Your task to perform on an android device: Open Google Chrome and open the bookmarks view Image 0: 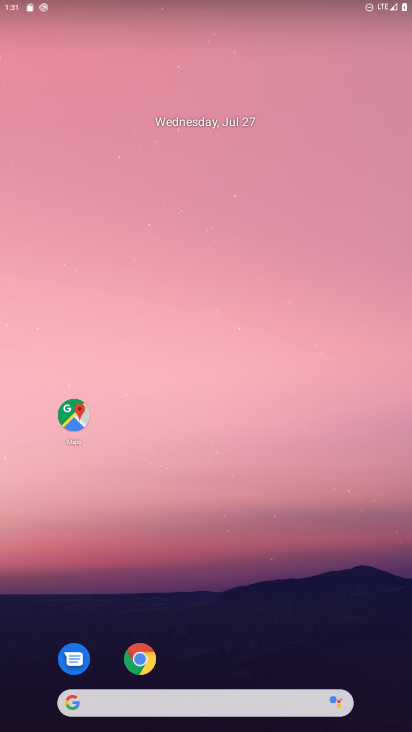
Step 0: click (141, 665)
Your task to perform on an android device: Open Google Chrome and open the bookmarks view Image 1: 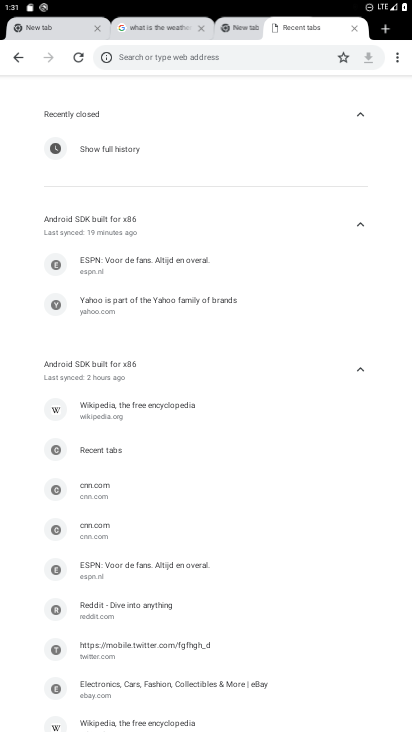
Step 1: click (394, 55)
Your task to perform on an android device: Open Google Chrome and open the bookmarks view Image 2: 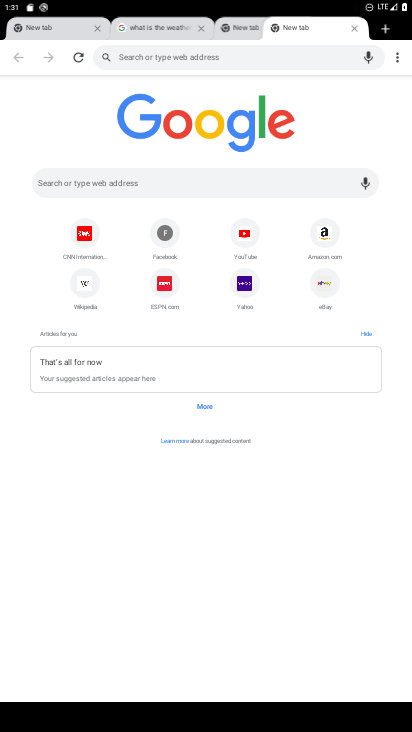
Step 2: click (401, 63)
Your task to perform on an android device: Open Google Chrome and open the bookmarks view Image 3: 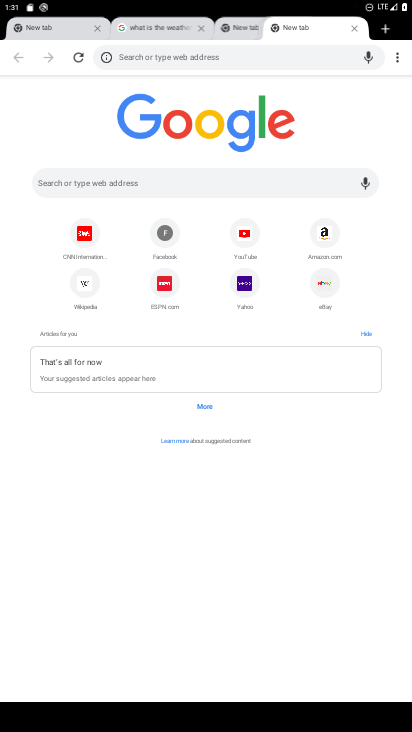
Step 3: click (401, 56)
Your task to perform on an android device: Open Google Chrome and open the bookmarks view Image 4: 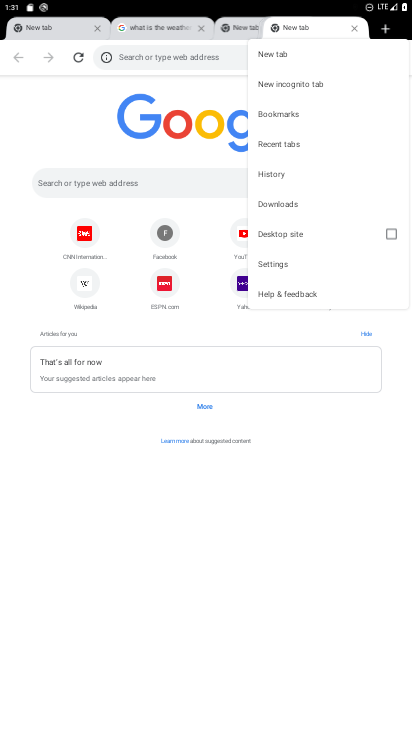
Step 4: click (312, 114)
Your task to perform on an android device: Open Google Chrome and open the bookmarks view Image 5: 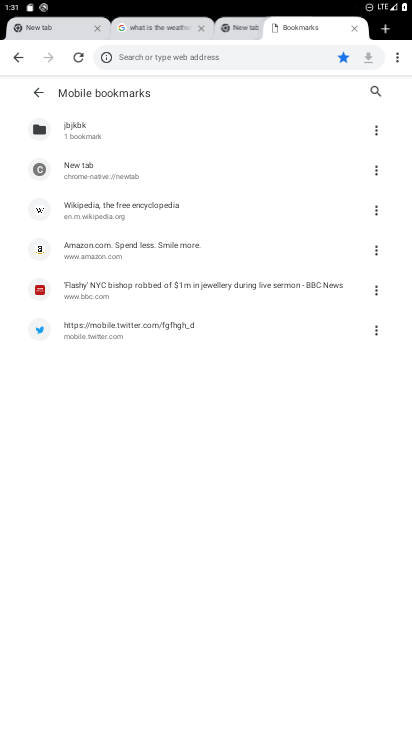
Step 5: task complete